Your task to perform on an android device: turn off priority inbox in the gmail app Image 0: 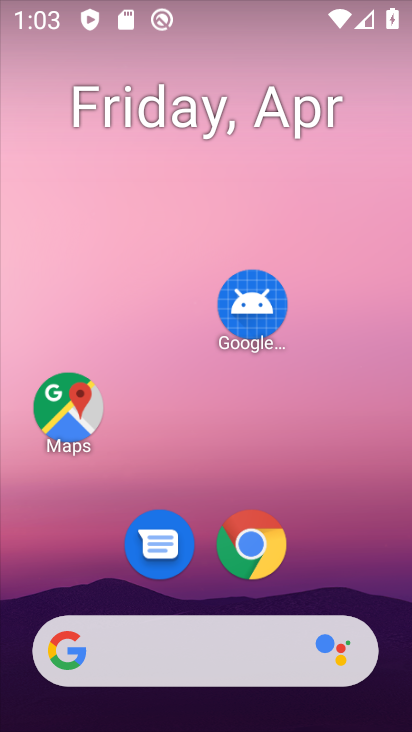
Step 0: drag from (97, 614) to (206, 72)
Your task to perform on an android device: turn off priority inbox in the gmail app Image 1: 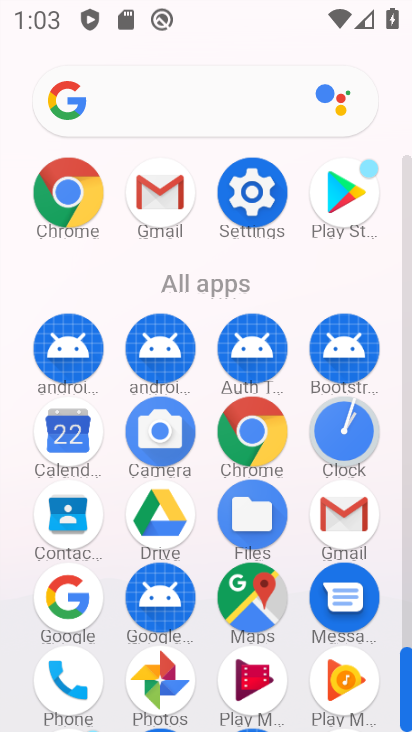
Step 1: click (338, 513)
Your task to perform on an android device: turn off priority inbox in the gmail app Image 2: 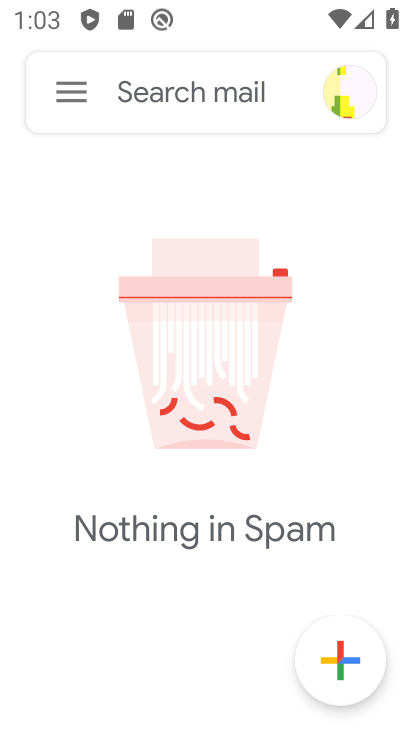
Step 2: click (66, 102)
Your task to perform on an android device: turn off priority inbox in the gmail app Image 3: 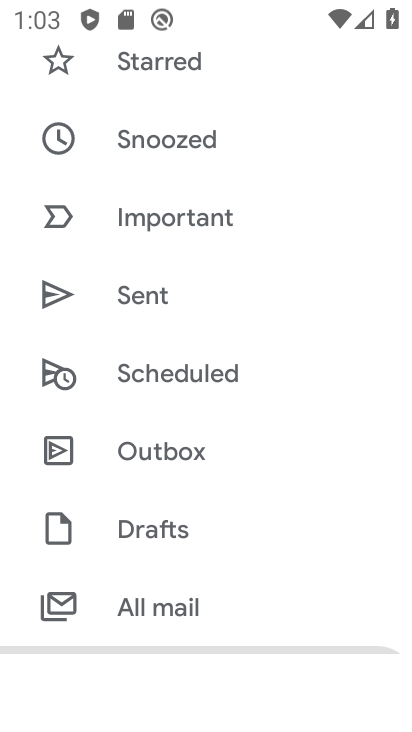
Step 3: drag from (175, 606) to (269, 166)
Your task to perform on an android device: turn off priority inbox in the gmail app Image 4: 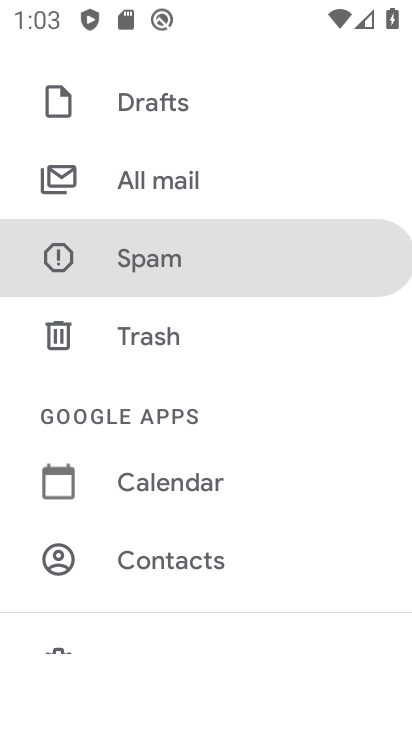
Step 4: drag from (201, 595) to (258, 291)
Your task to perform on an android device: turn off priority inbox in the gmail app Image 5: 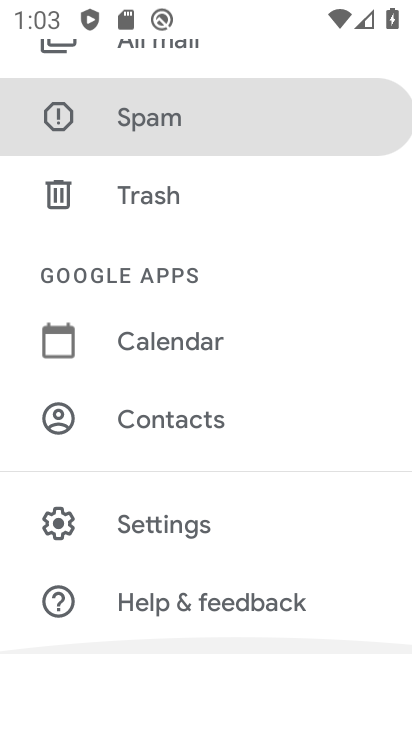
Step 5: click (212, 537)
Your task to perform on an android device: turn off priority inbox in the gmail app Image 6: 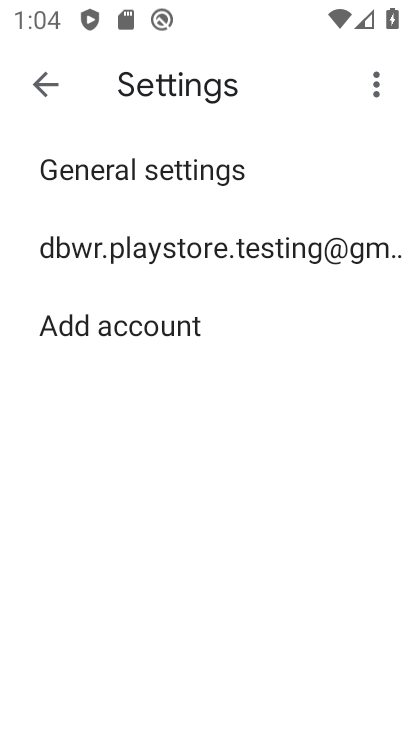
Step 6: click (202, 255)
Your task to perform on an android device: turn off priority inbox in the gmail app Image 7: 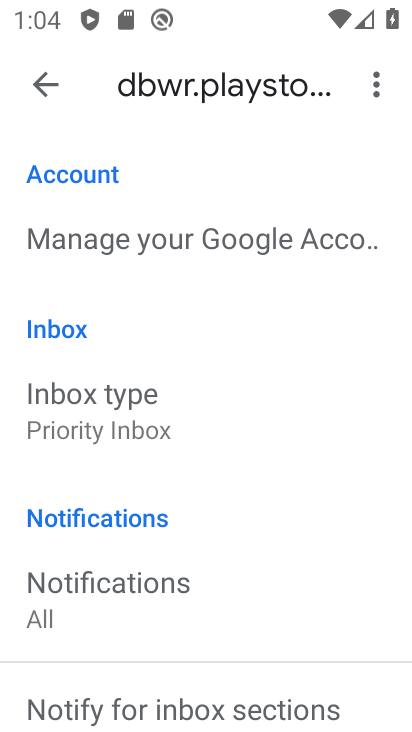
Step 7: click (194, 427)
Your task to perform on an android device: turn off priority inbox in the gmail app Image 8: 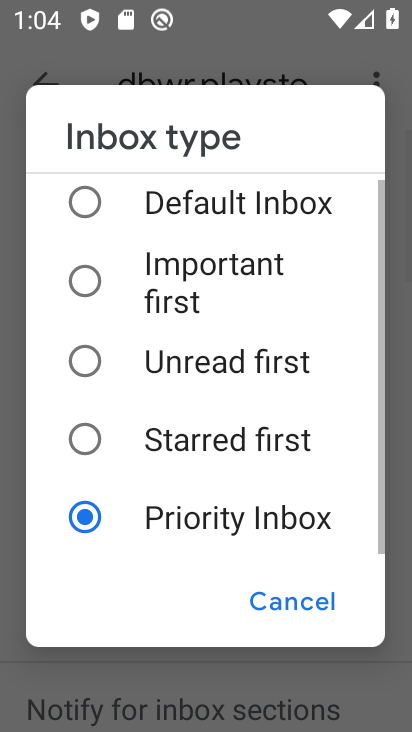
Step 8: click (189, 207)
Your task to perform on an android device: turn off priority inbox in the gmail app Image 9: 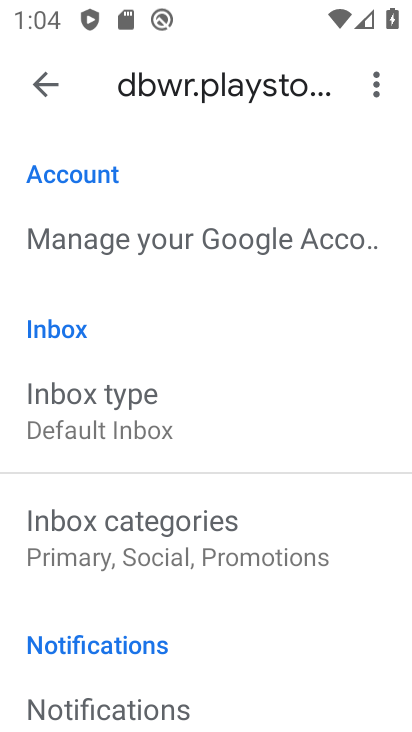
Step 9: task complete